Your task to perform on an android device: Go to Yahoo.com Image 0: 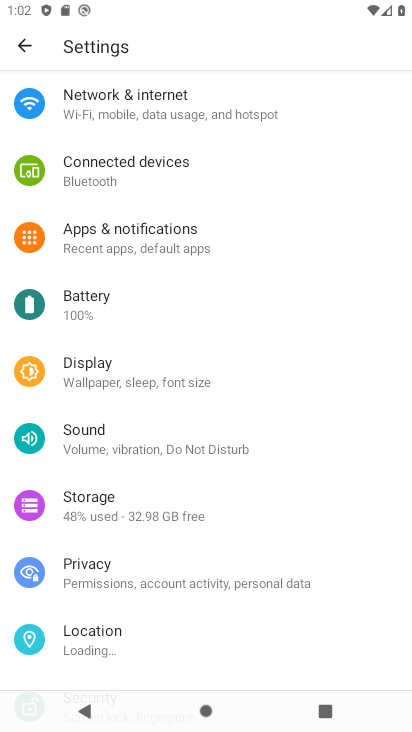
Step 0: press home button
Your task to perform on an android device: Go to Yahoo.com Image 1: 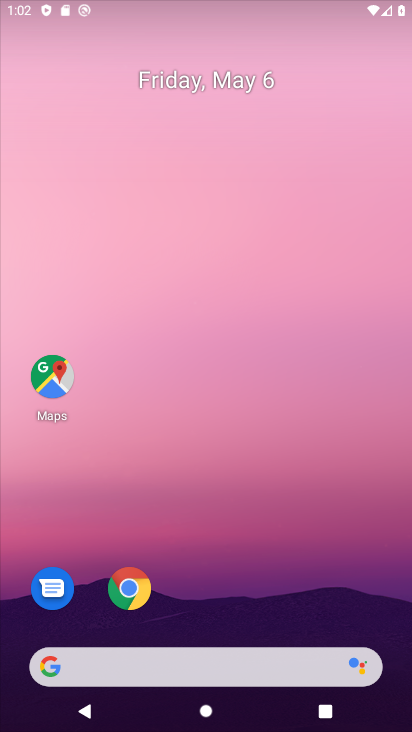
Step 1: drag from (279, 592) to (303, 222)
Your task to perform on an android device: Go to Yahoo.com Image 2: 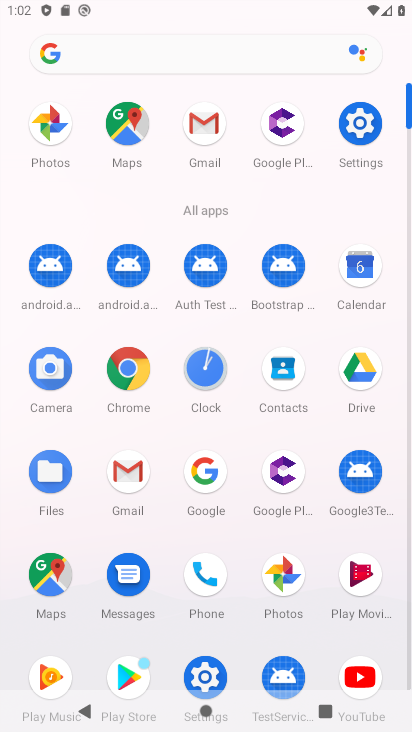
Step 2: click (131, 359)
Your task to perform on an android device: Go to Yahoo.com Image 3: 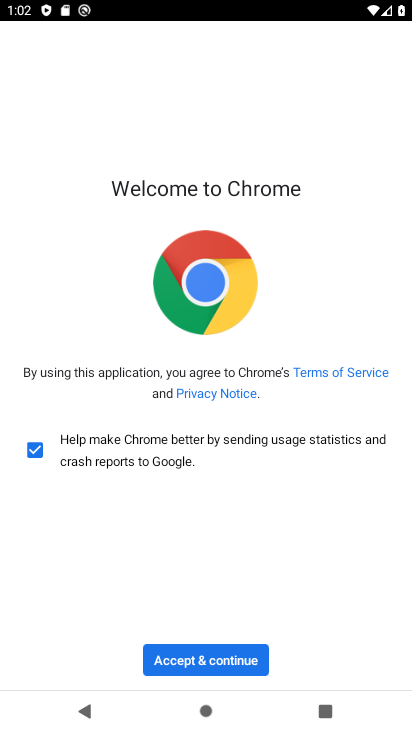
Step 3: click (234, 665)
Your task to perform on an android device: Go to Yahoo.com Image 4: 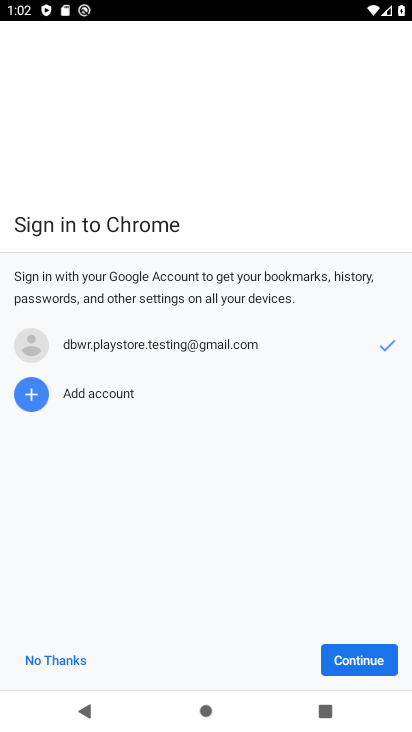
Step 4: click (364, 656)
Your task to perform on an android device: Go to Yahoo.com Image 5: 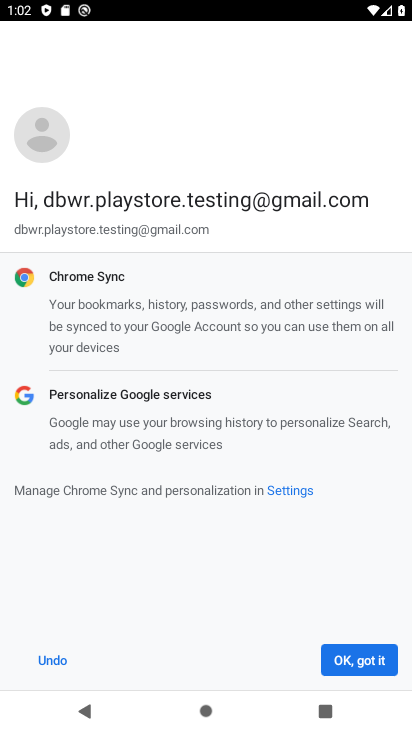
Step 5: click (363, 658)
Your task to perform on an android device: Go to Yahoo.com Image 6: 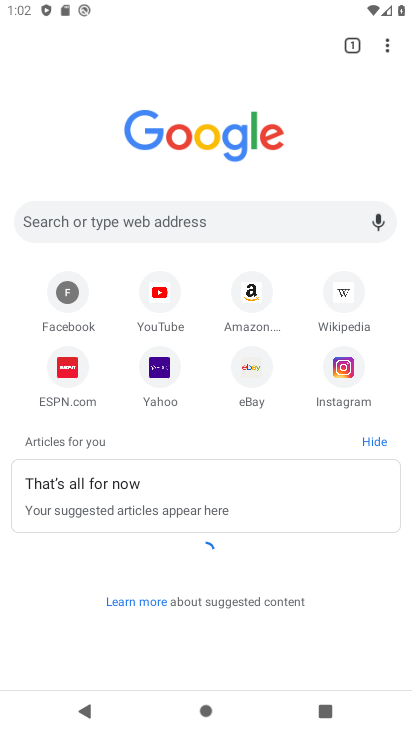
Step 6: click (208, 213)
Your task to perform on an android device: Go to Yahoo.com Image 7: 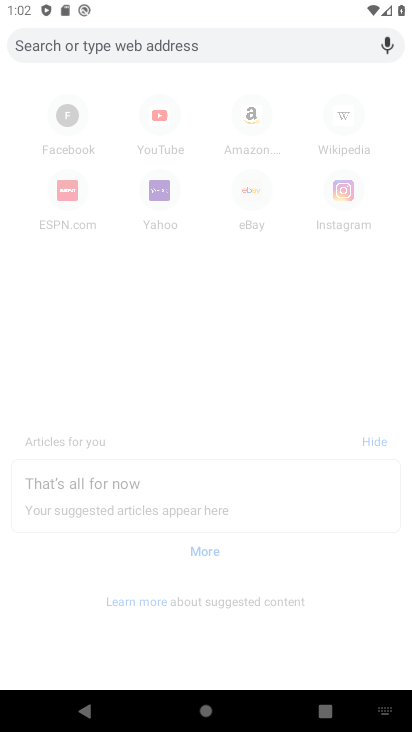
Step 7: type "yahoo.com"
Your task to perform on an android device: Go to Yahoo.com Image 8: 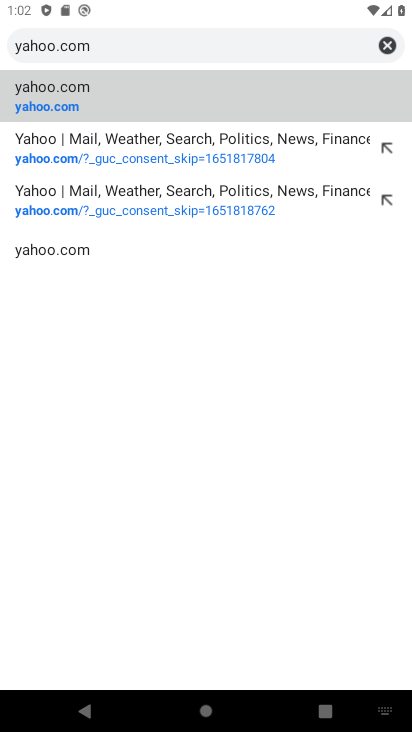
Step 8: click (105, 81)
Your task to perform on an android device: Go to Yahoo.com Image 9: 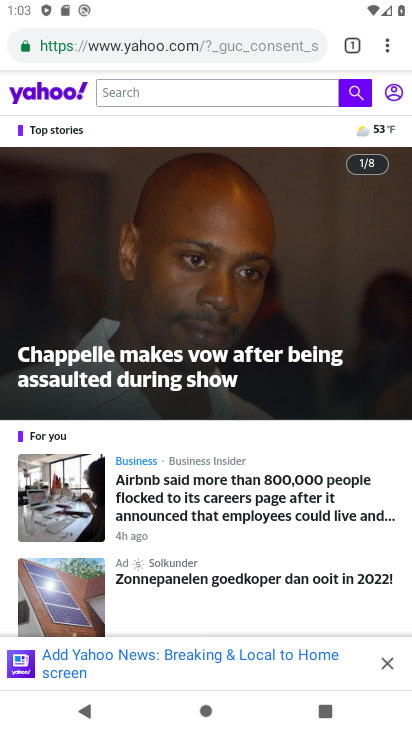
Step 9: task complete